Your task to perform on an android device: change alarm snooze length Image 0: 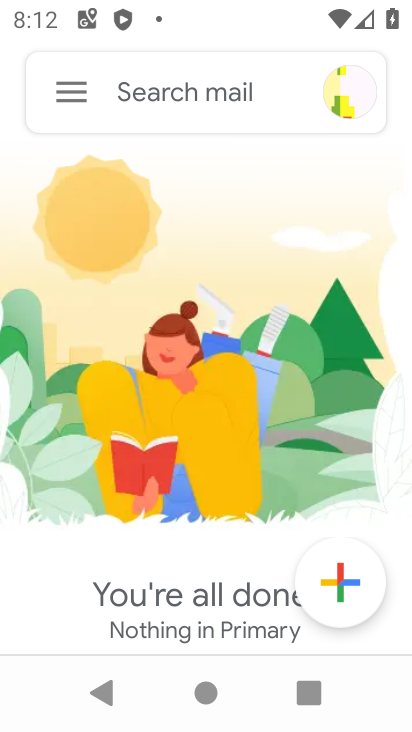
Step 0: press home button
Your task to perform on an android device: change alarm snooze length Image 1: 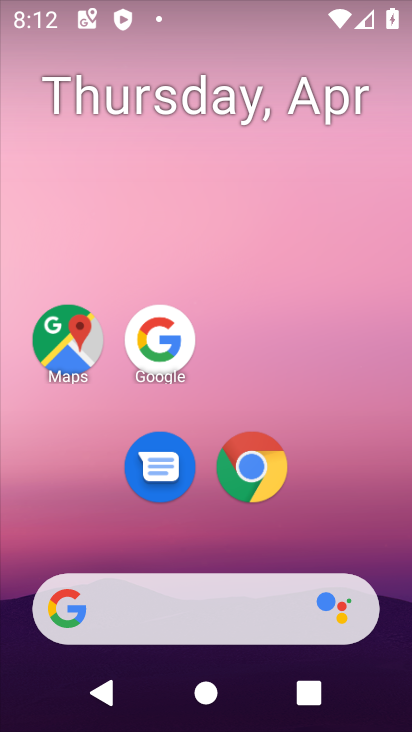
Step 1: drag from (207, 605) to (307, 135)
Your task to perform on an android device: change alarm snooze length Image 2: 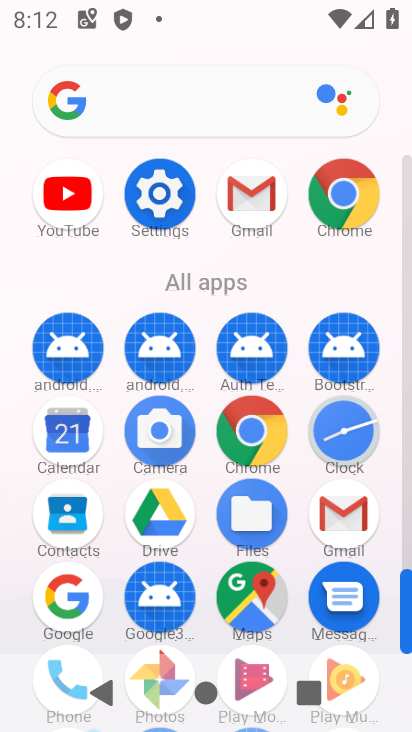
Step 2: click (326, 434)
Your task to perform on an android device: change alarm snooze length Image 3: 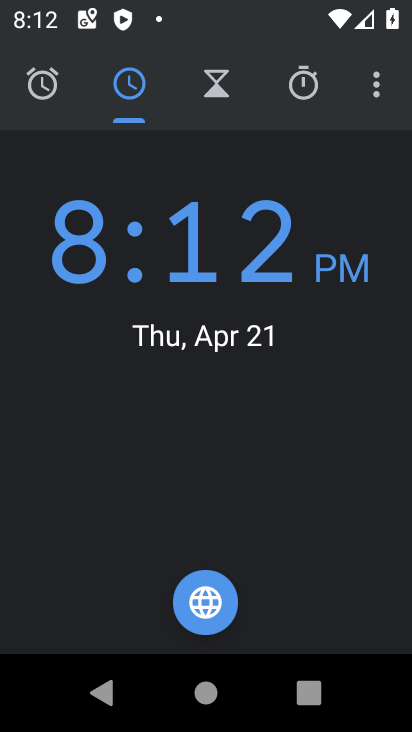
Step 3: click (368, 97)
Your task to perform on an android device: change alarm snooze length Image 4: 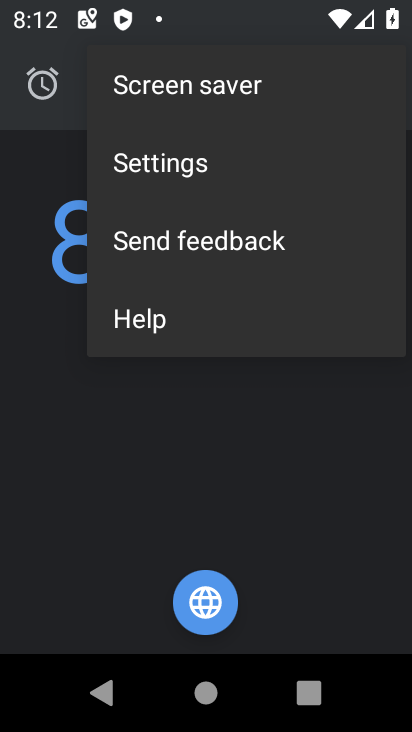
Step 4: click (182, 156)
Your task to perform on an android device: change alarm snooze length Image 5: 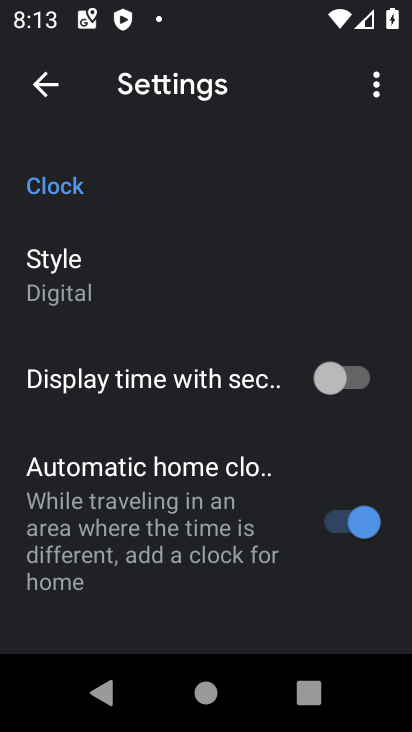
Step 5: drag from (207, 545) to (186, 32)
Your task to perform on an android device: change alarm snooze length Image 6: 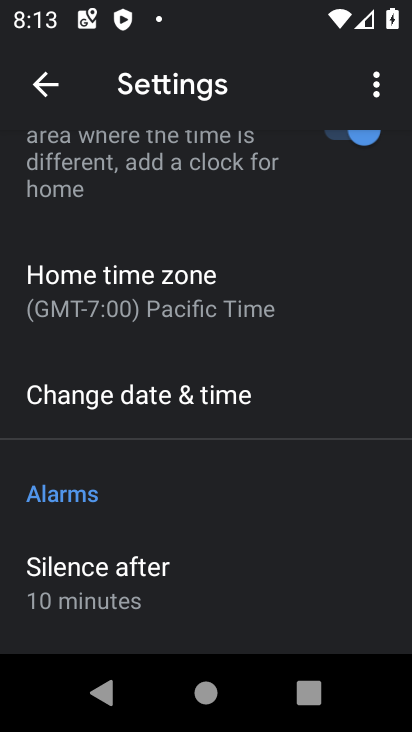
Step 6: drag from (171, 581) to (188, 111)
Your task to perform on an android device: change alarm snooze length Image 7: 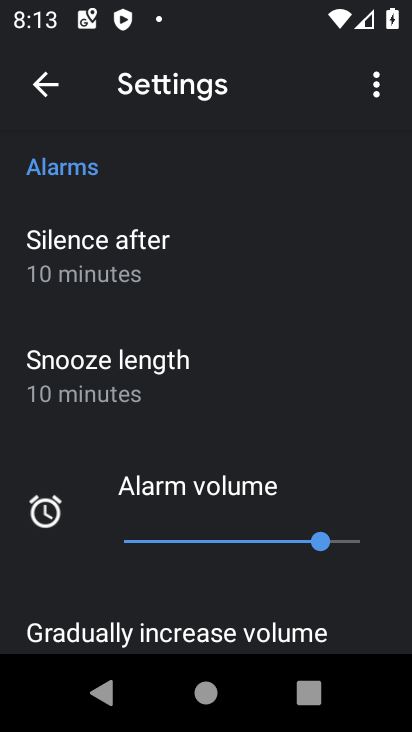
Step 7: click (105, 378)
Your task to perform on an android device: change alarm snooze length Image 8: 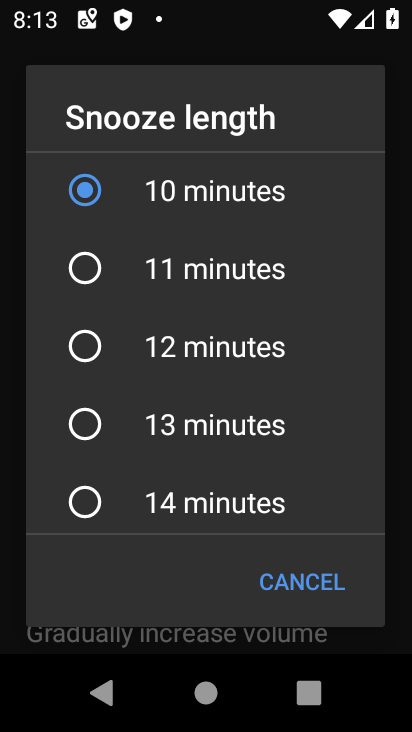
Step 8: click (161, 425)
Your task to perform on an android device: change alarm snooze length Image 9: 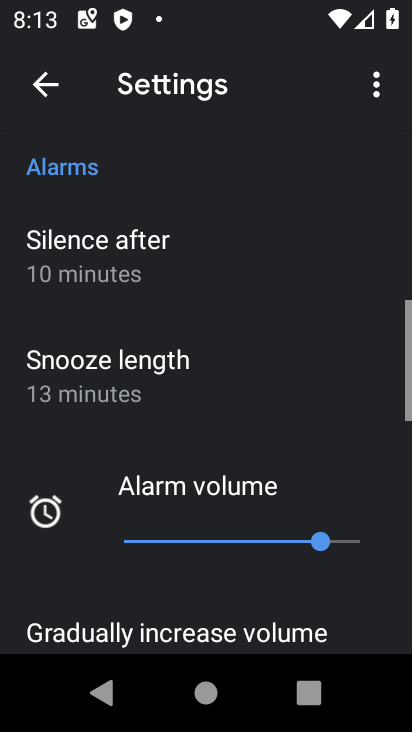
Step 9: task complete